Your task to perform on an android device: change your default location settings in chrome Image 0: 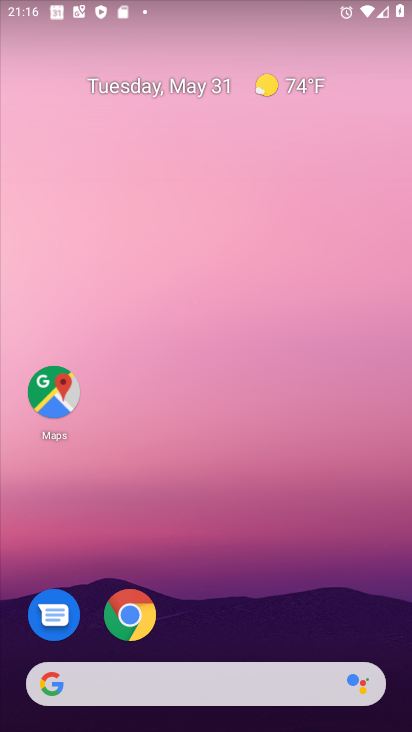
Step 0: click (140, 612)
Your task to perform on an android device: change your default location settings in chrome Image 1: 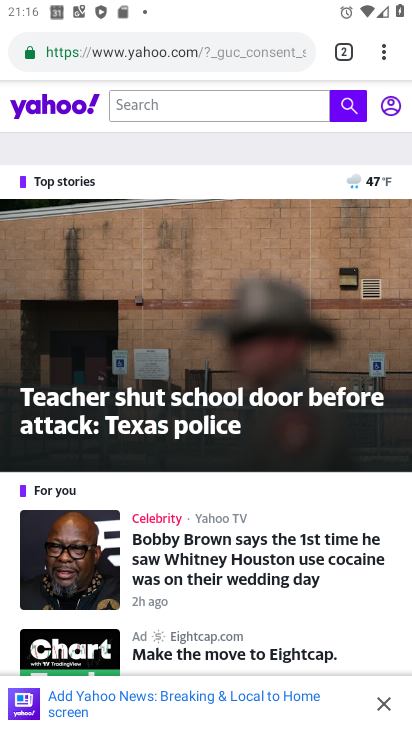
Step 1: click (381, 51)
Your task to perform on an android device: change your default location settings in chrome Image 2: 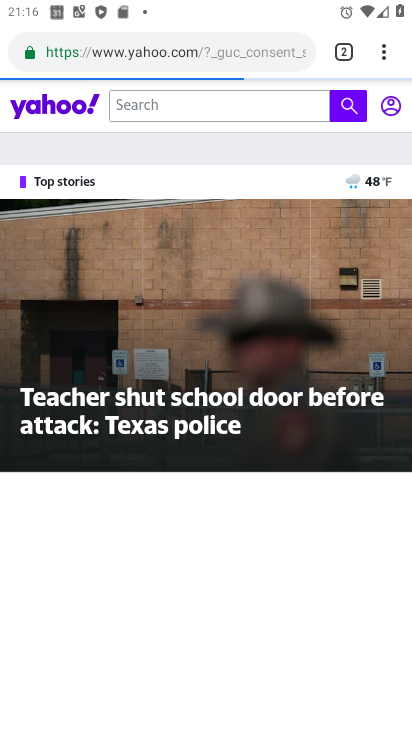
Step 2: drag from (381, 51) to (219, 567)
Your task to perform on an android device: change your default location settings in chrome Image 3: 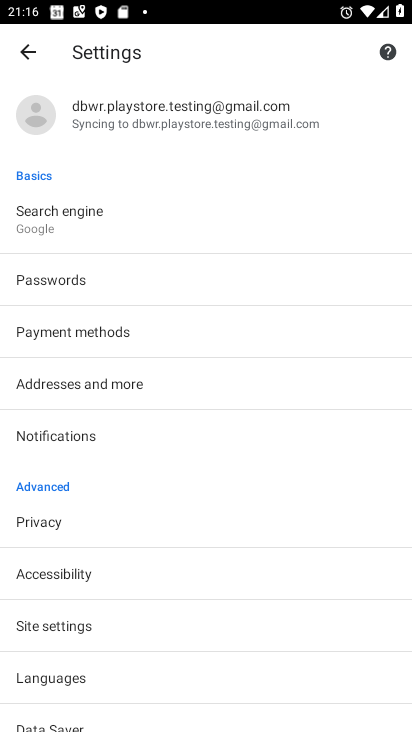
Step 3: click (94, 615)
Your task to perform on an android device: change your default location settings in chrome Image 4: 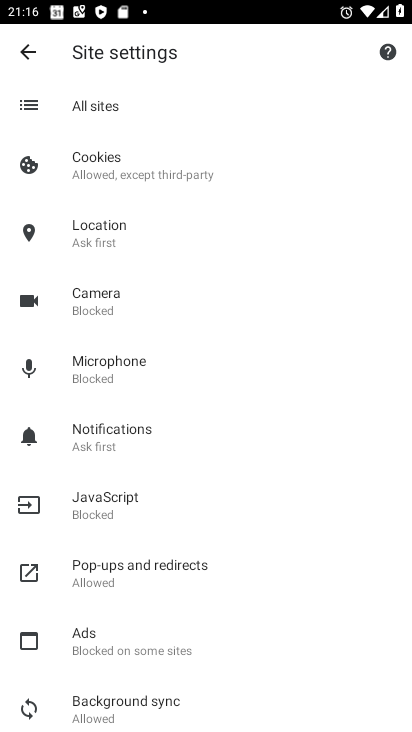
Step 4: click (140, 220)
Your task to perform on an android device: change your default location settings in chrome Image 5: 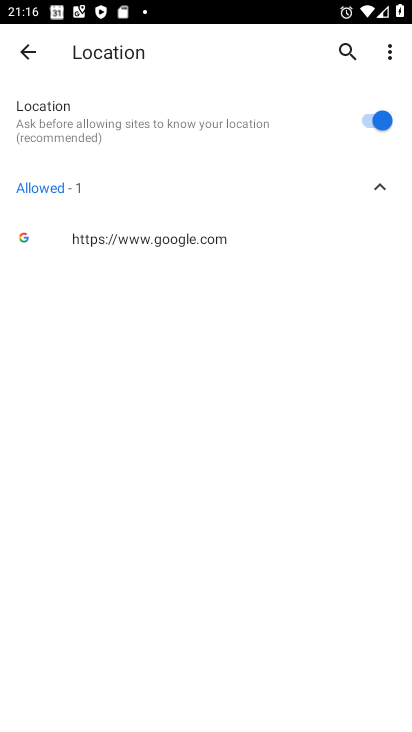
Step 5: click (367, 121)
Your task to perform on an android device: change your default location settings in chrome Image 6: 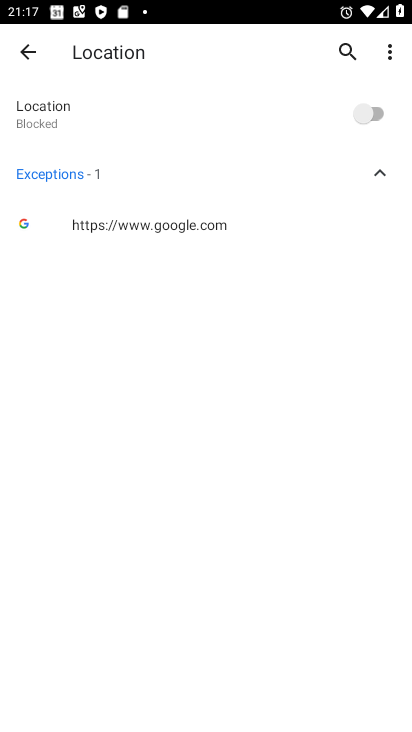
Step 6: task complete